Your task to perform on an android device: Open calendar and show me the third week of next month Image 0: 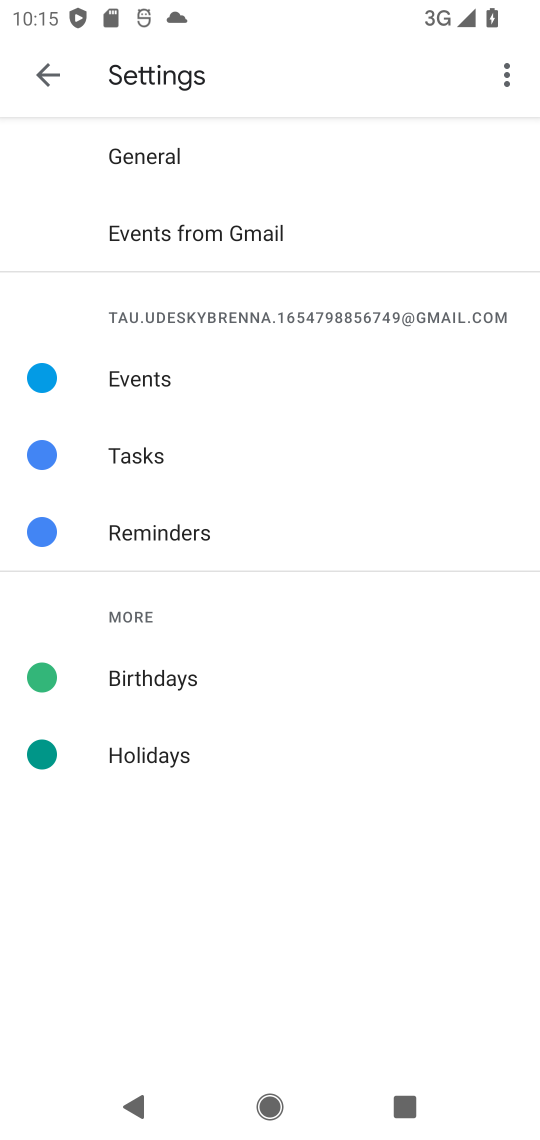
Step 0: press home button
Your task to perform on an android device: Open calendar and show me the third week of next month Image 1: 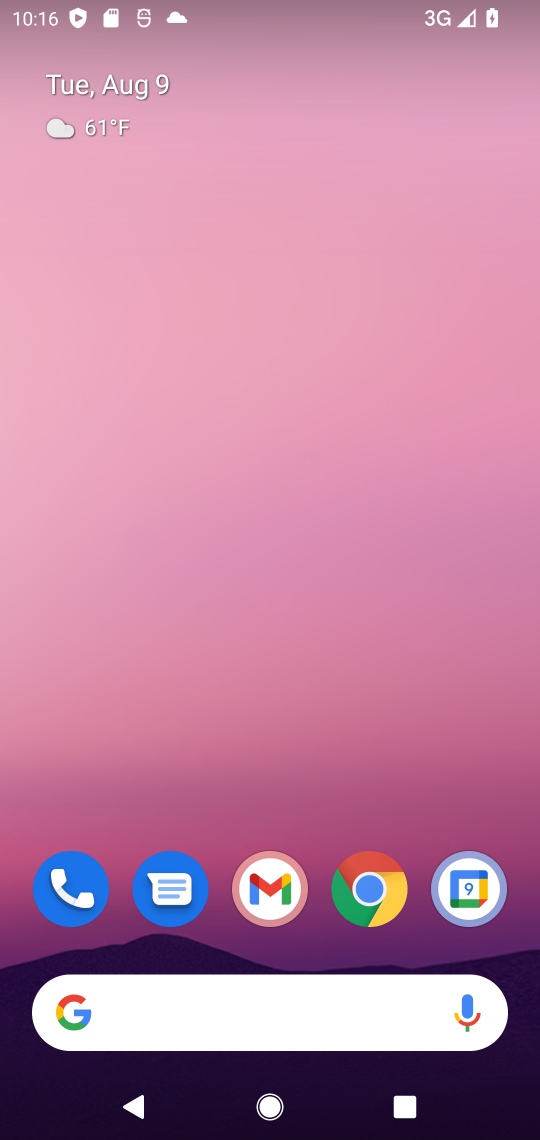
Step 1: drag from (327, 947) to (371, 7)
Your task to perform on an android device: Open calendar and show me the third week of next month Image 2: 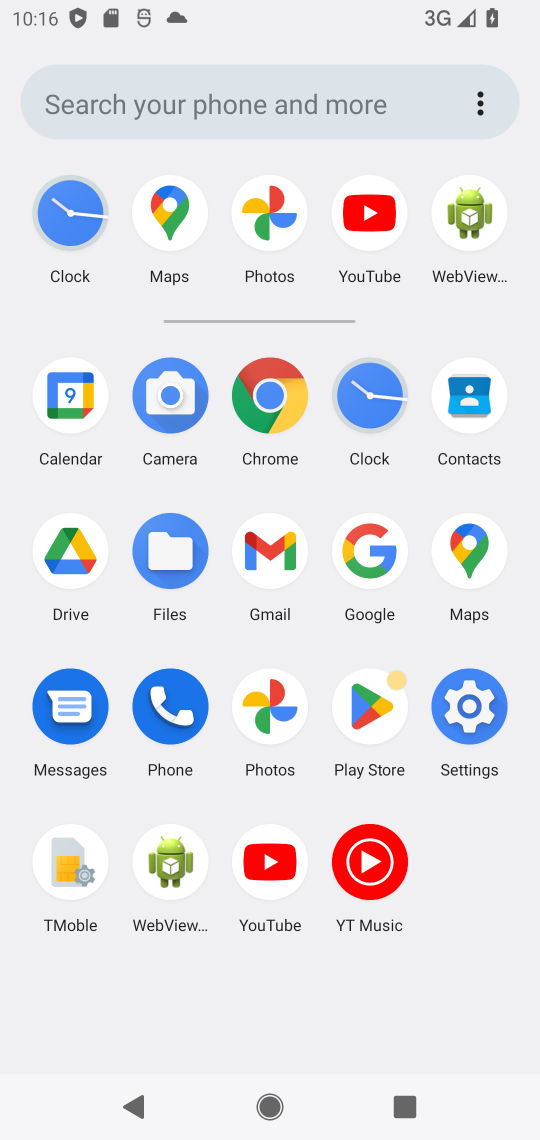
Step 2: click (463, 385)
Your task to perform on an android device: Open calendar and show me the third week of next month Image 3: 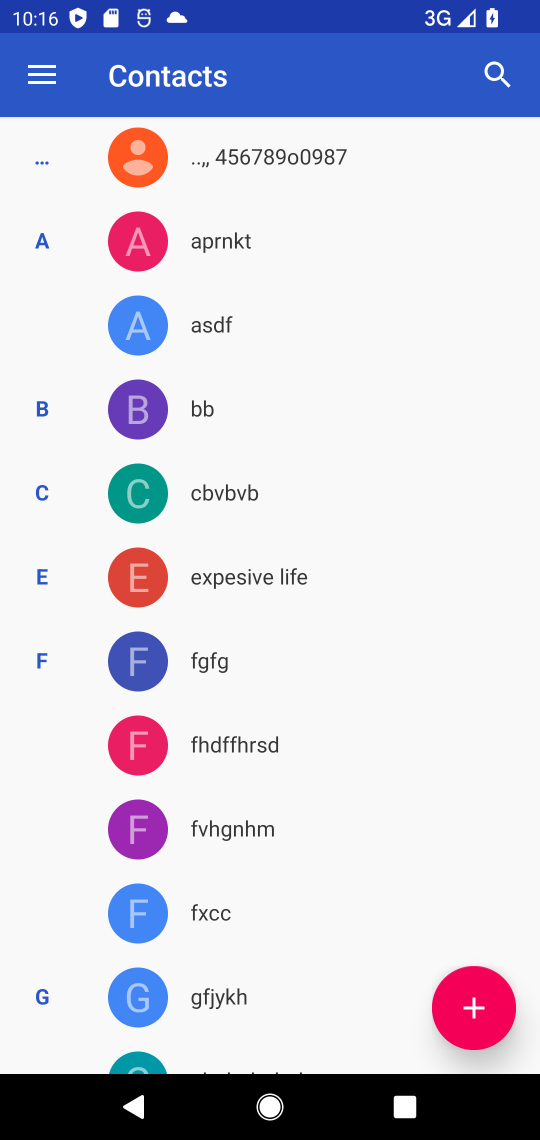
Step 3: press back button
Your task to perform on an android device: Open calendar and show me the third week of next month Image 4: 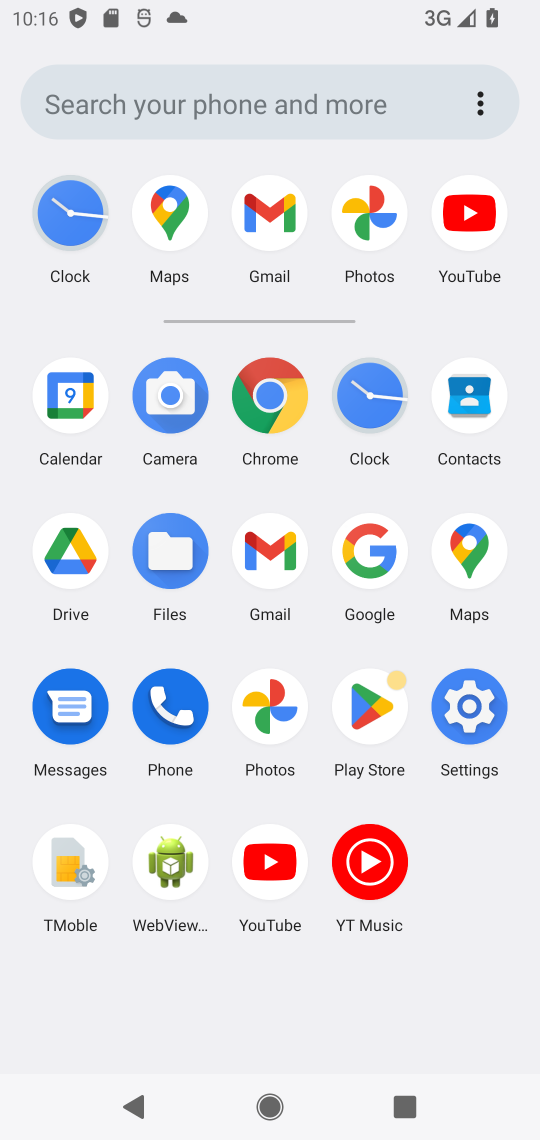
Step 4: click (94, 402)
Your task to perform on an android device: Open calendar and show me the third week of next month Image 5: 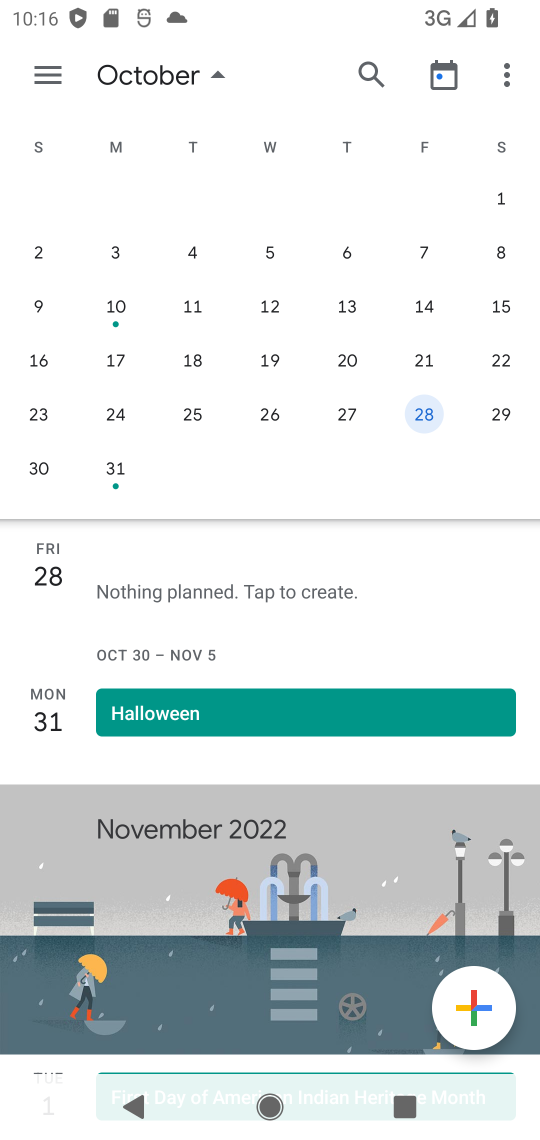
Step 5: drag from (489, 342) to (0, 350)
Your task to perform on an android device: Open calendar and show me the third week of next month Image 6: 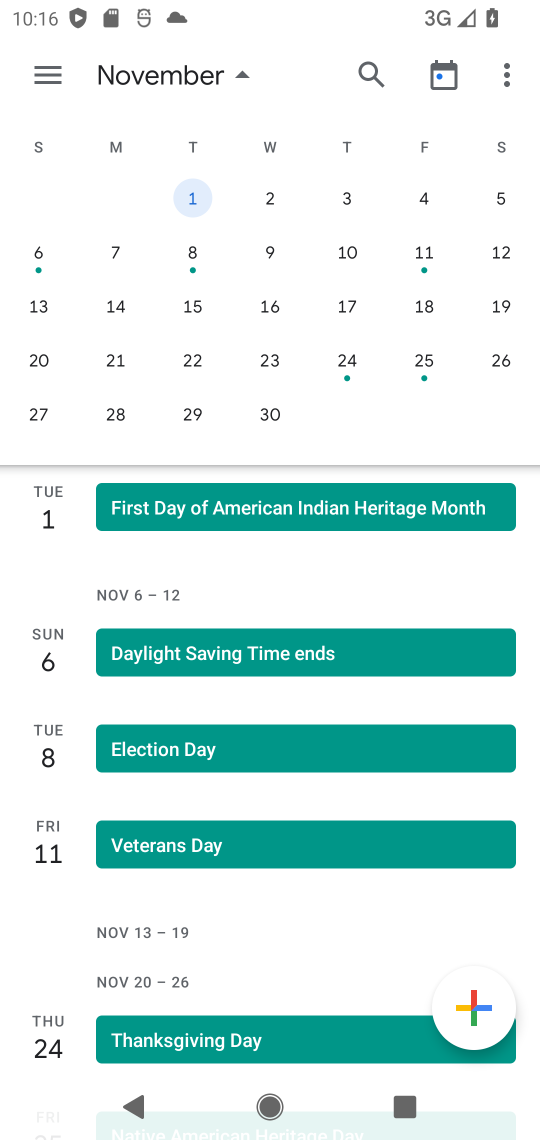
Step 6: click (129, 367)
Your task to perform on an android device: Open calendar and show me the third week of next month Image 7: 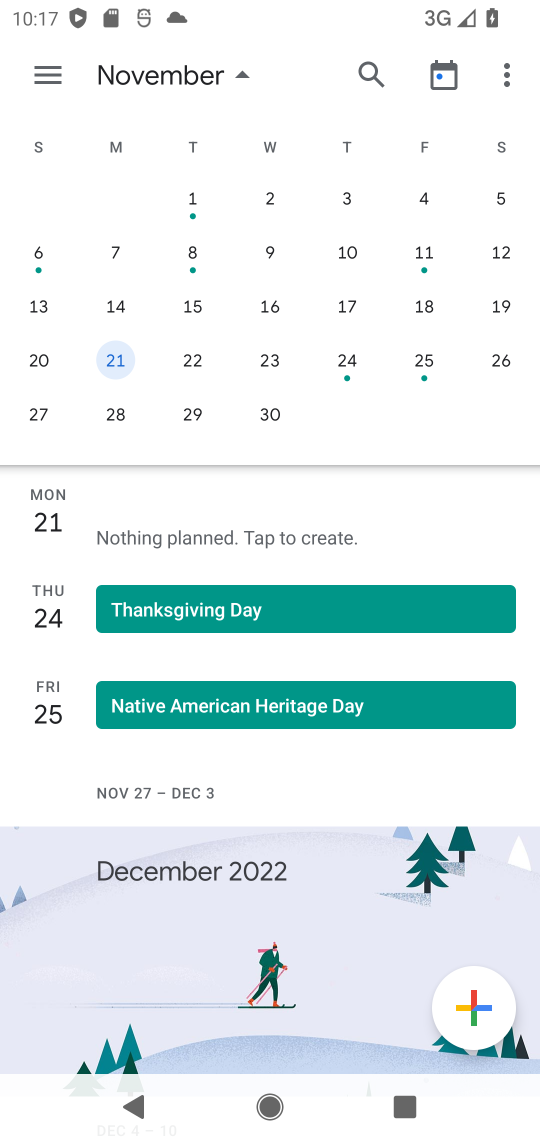
Step 7: task complete